Your task to perform on an android device: Show me popular videos on Youtube Image 0: 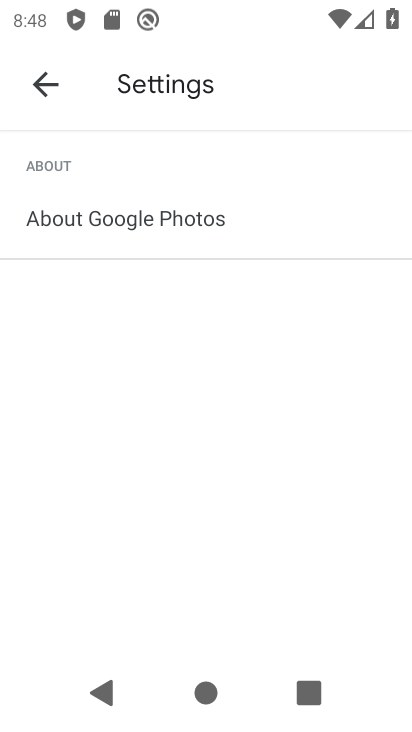
Step 0: press home button
Your task to perform on an android device: Show me popular videos on Youtube Image 1: 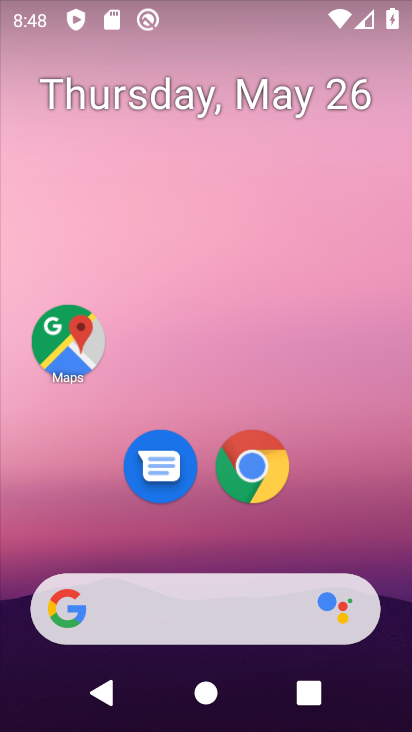
Step 1: drag from (349, 502) to (213, 8)
Your task to perform on an android device: Show me popular videos on Youtube Image 2: 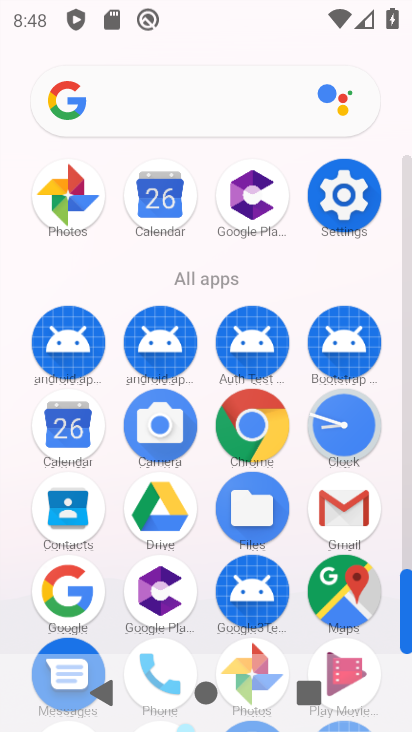
Step 2: drag from (202, 635) to (154, 122)
Your task to perform on an android device: Show me popular videos on Youtube Image 3: 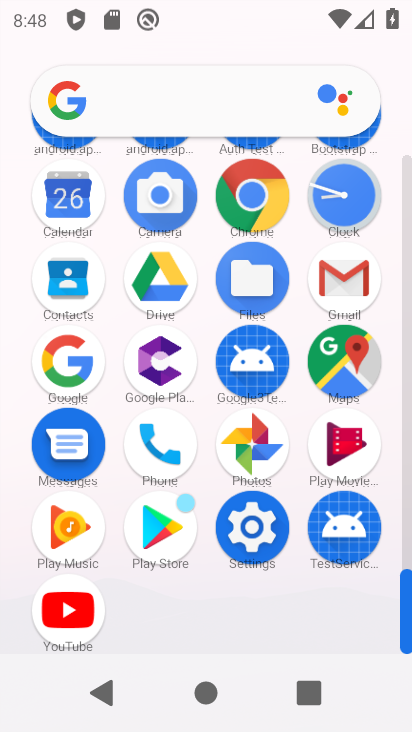
Step 3: click (69, 603)
Your task to perform on an android device: Show me popular videos on Youtube Image 4: 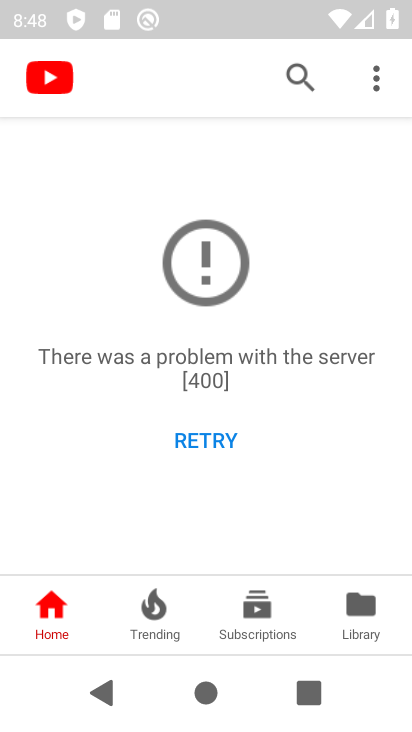
Step 4: click (141, 602)
Your task to perform on an android device: Show me popular videos on Youtube Image 5: 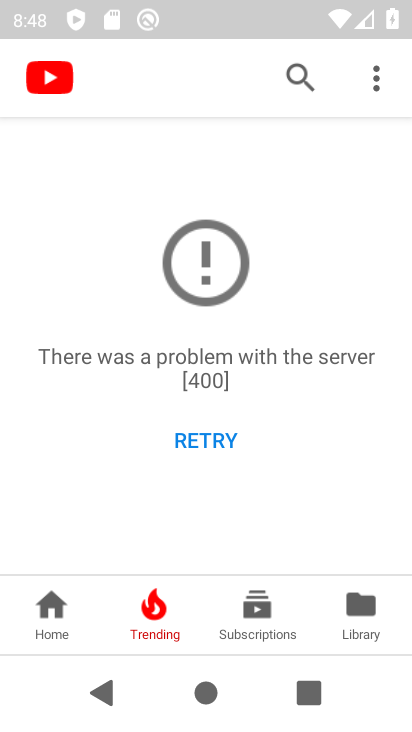
Step 5: click (159, 588)
Your task to perform on an android device: Show me popular videos on Youtube Image 6: 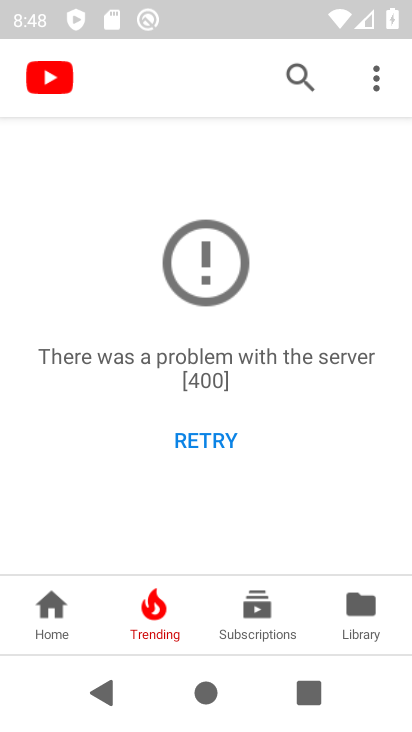
Step 6: task complete